Your task to perform on an android device: turn on bluetooth scan Image 0: 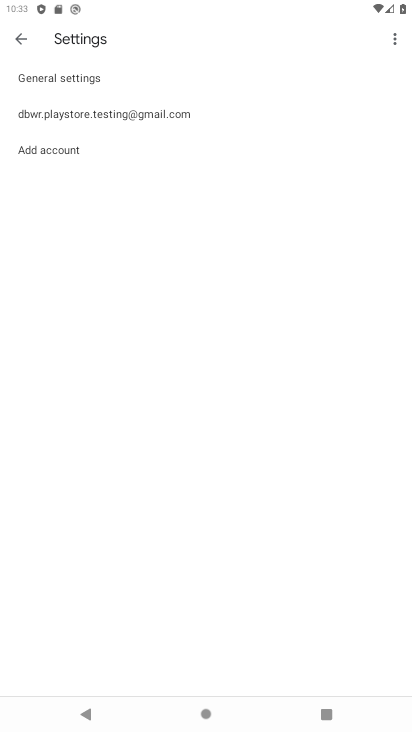
Step 0: press home button
Your task to perform on an android device: turn on bluetooth scan Image 1: 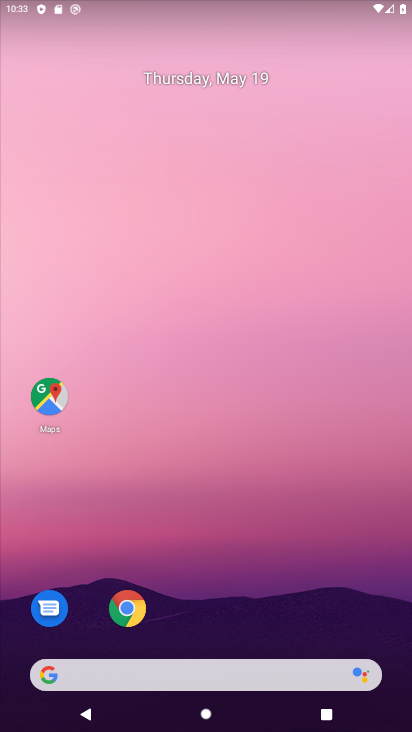
Step 1: drag from (385, 616) to (385, 259)
Your task to perform on an android device: turn on bluetooth scan Image 2: 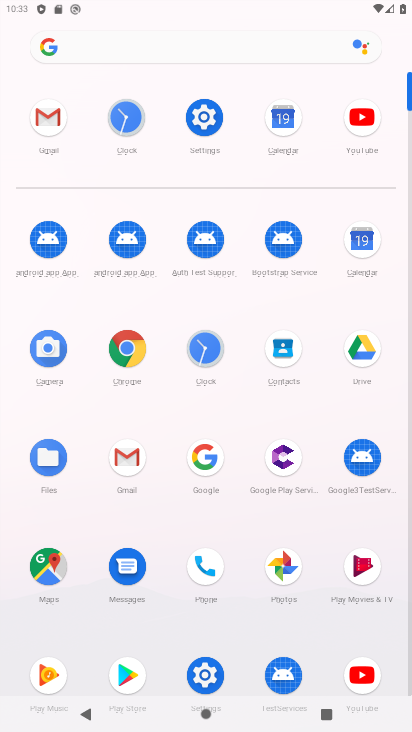
Step 2: click (196, 112)
Your task to perform on an android device: turn on bluetooth scan Image 3: 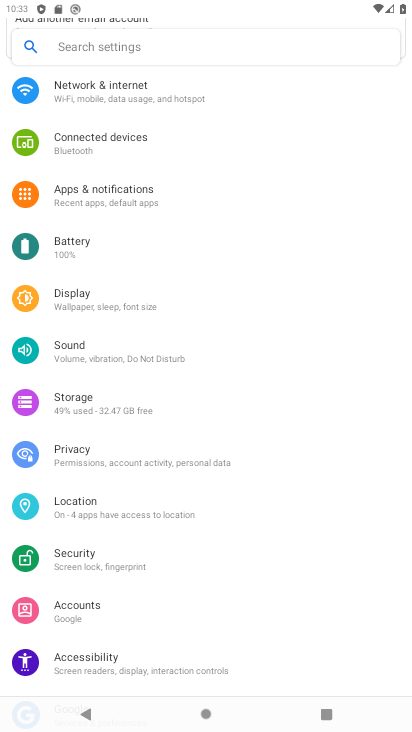
Step 3: click (69, 502)
Your task to perform on an android device: turn on bluetooth scan Image 4: 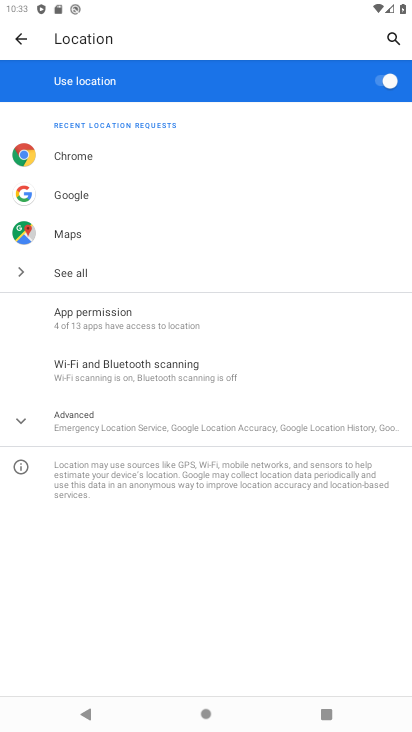
Step 4: click (93, 372)
Your task to perform on an android device: turn on bluetooth scan Image 5: 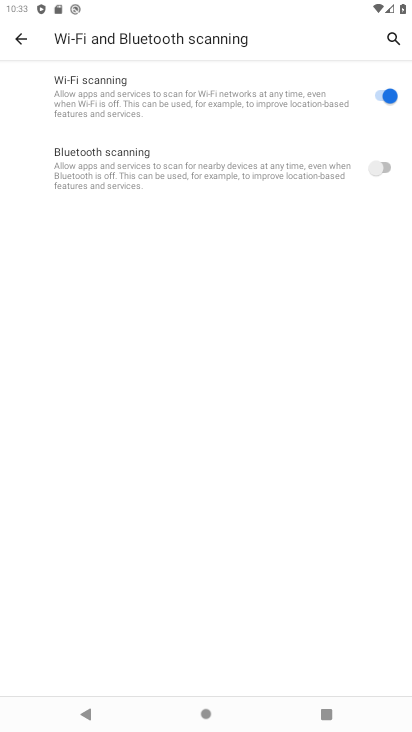
Step 5: click (387, 164)
Your task to perform on an android device: turn on bluetooth scan Image 6: 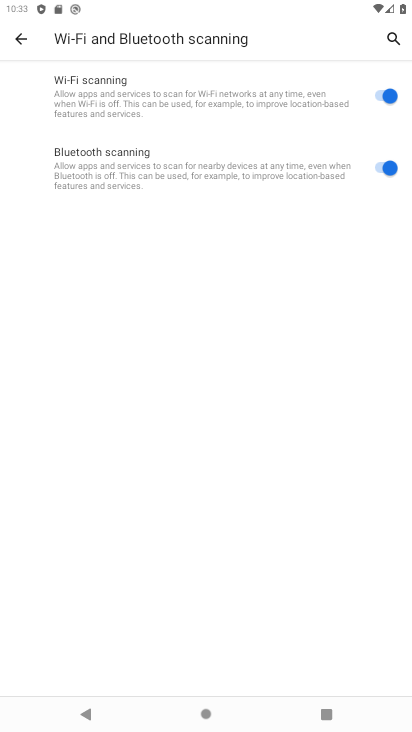
Step 6: task complete